Your task to perform on an android device: uninstall "NewsBreak: Local News & Alerts" Image 0: 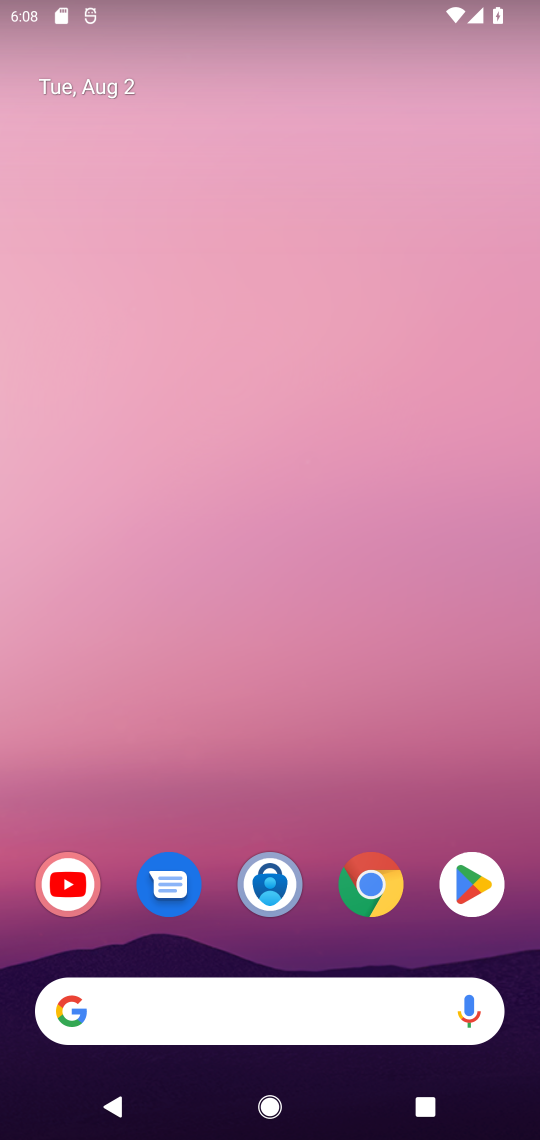
Step 0: click (448, 902)
Your task to perform on an android device: uninstall "NewsBreak: Local News & Alerts" Image 1: 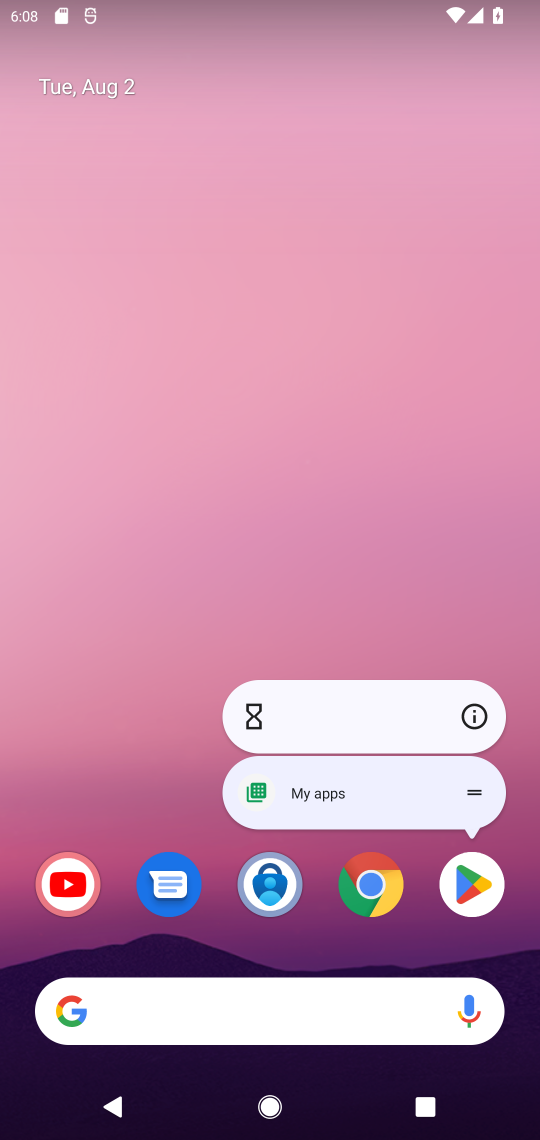
Step 1: click (473, 897)
Your task to perform on an android device: uninstall "NewsBreak: Local News & Alerts" Image 2: 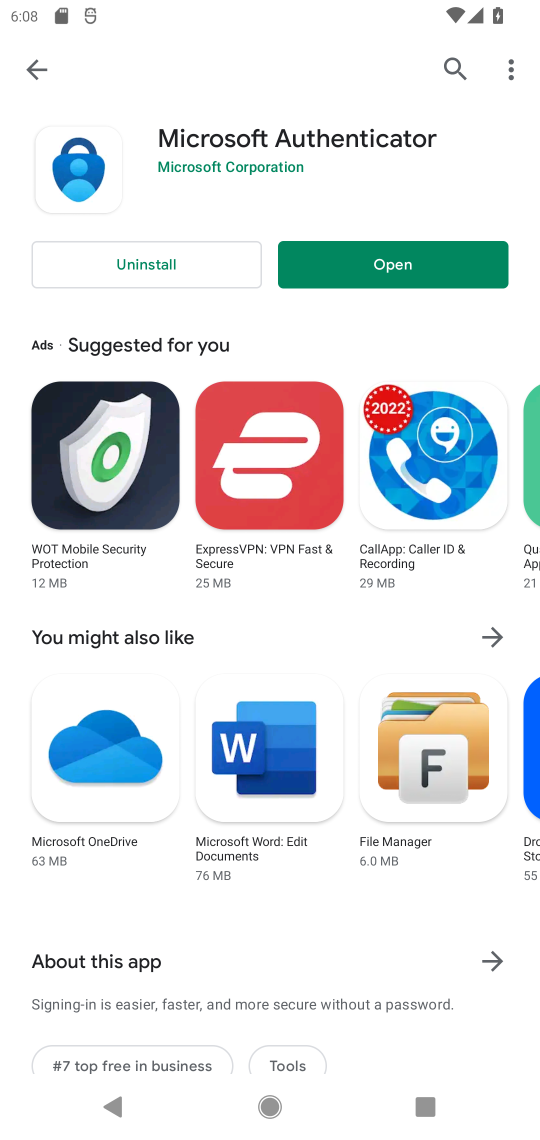
Step 2: click (444, 74)
Your task to perform on an android device: uninstall "NewsBreak: Local News & Alerts" Image 3: 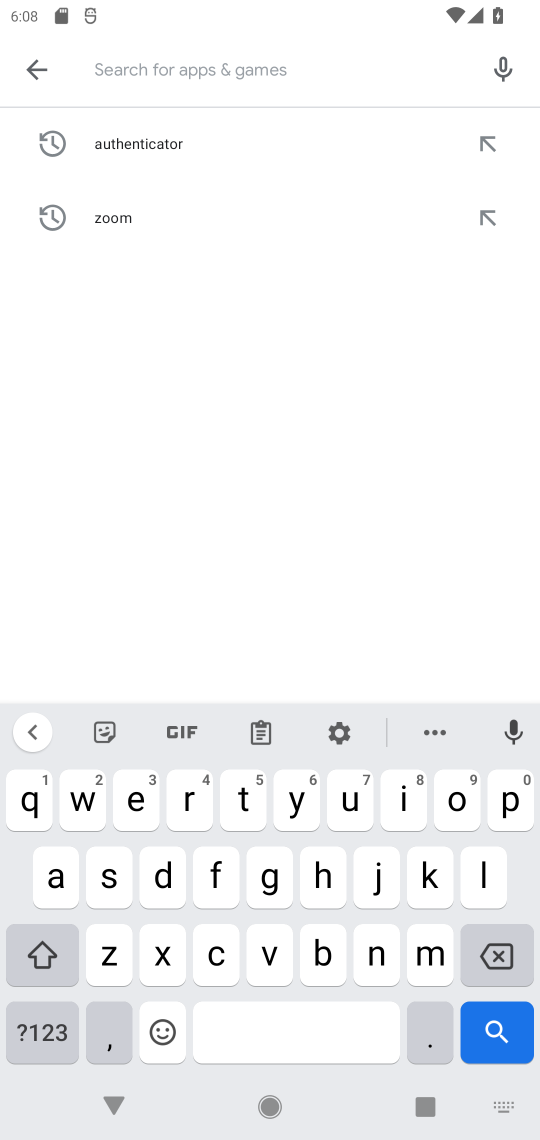
Step 3: click (370, 961)
Your task to perform on an android device: uninstall "NewsBreak: Local News & Alerts" Image 4: 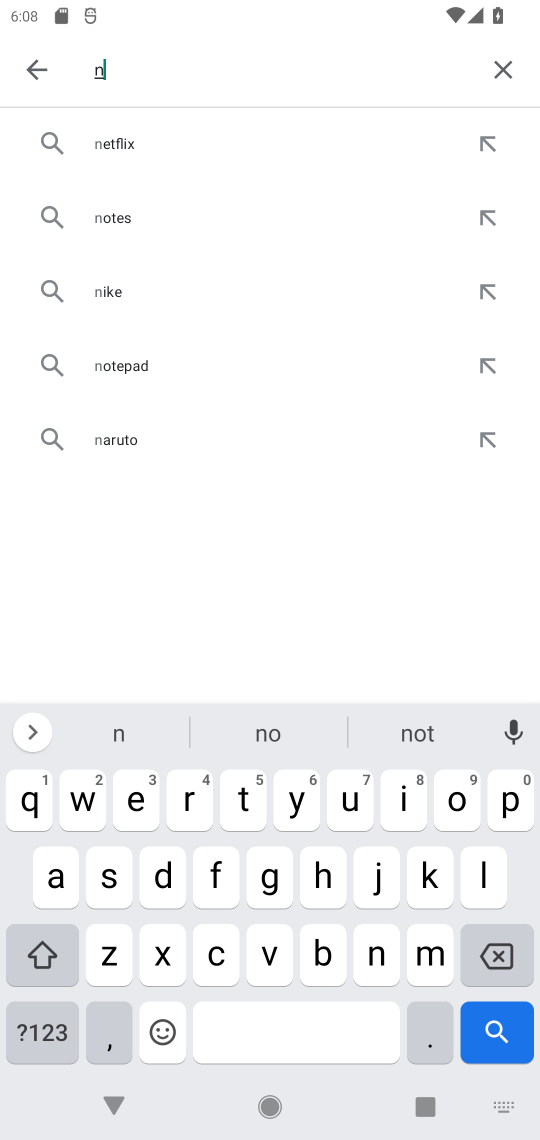
Step 4: click (149, 800)
Your task to perform on an android device: uninstall "NewsBreak: Local News & Alerts" Image 5: 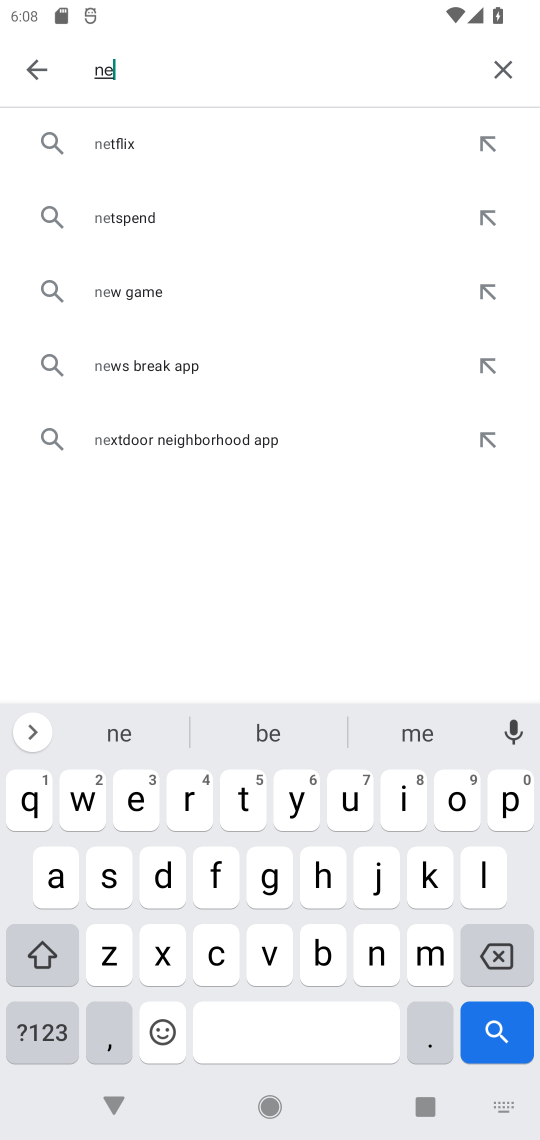
Step 5: click (68, 801)
Your task to perform on an android device: uninstall "NewsBreak: Local News & Alerts" Image 6: 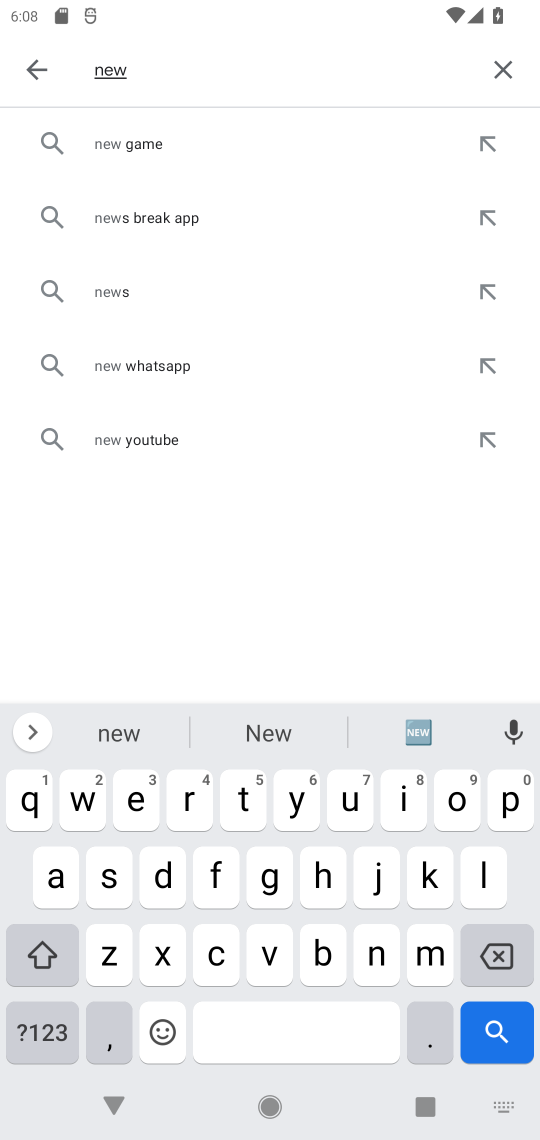
Step 6: click (145, 218)
Your task to perform on an android device: uninstall "NewsBreak: Local News & Alerts" Image 7: 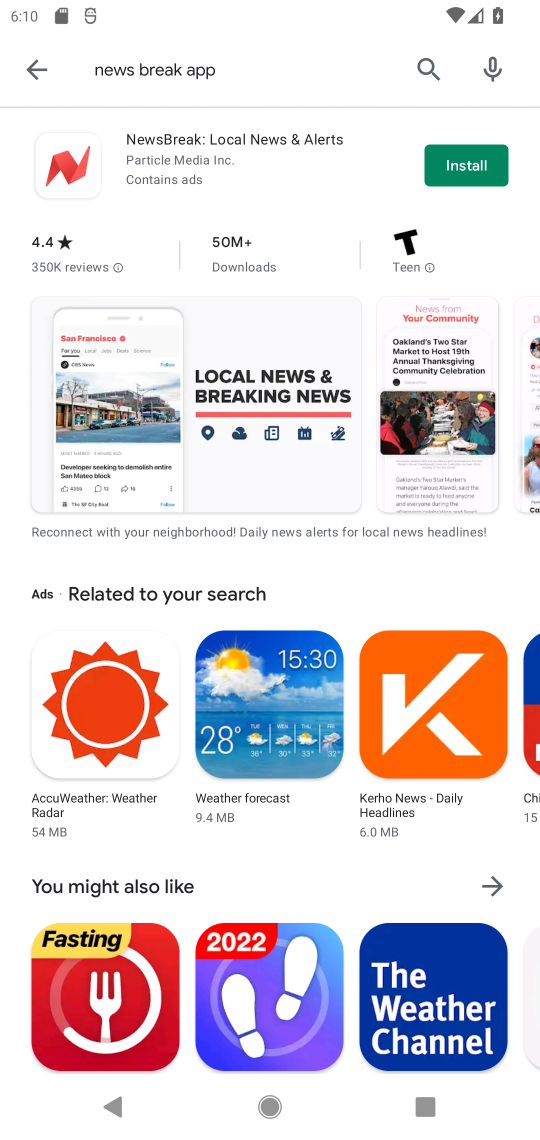
Step 7: task complete